Your task to perform on an android device: Search for pizza restaurants on Maps Image 0: 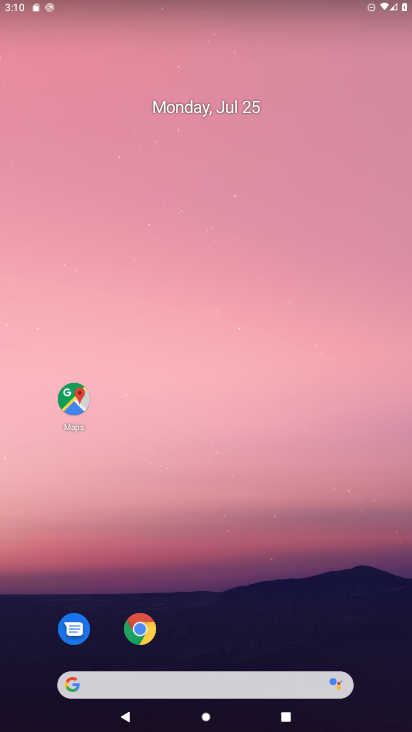
Step 0: click (82, 391)
Your task to perform on an android device: Search for pizza restaurants on Maps Image 1: 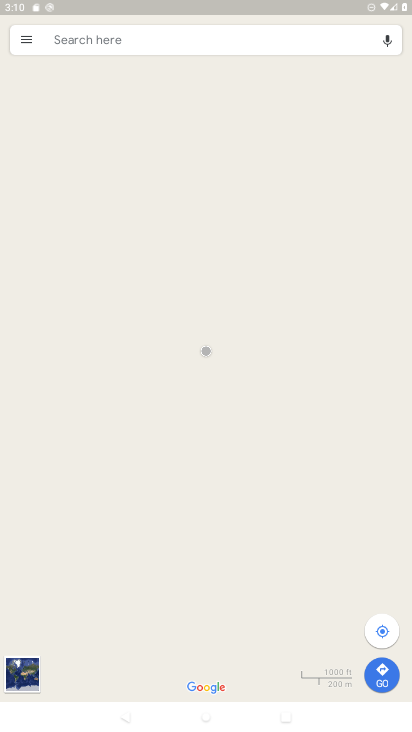
Step 1: click (73, 43)
Your task to perform on an android device: Search for pizza restaurants on Maps Image 2: 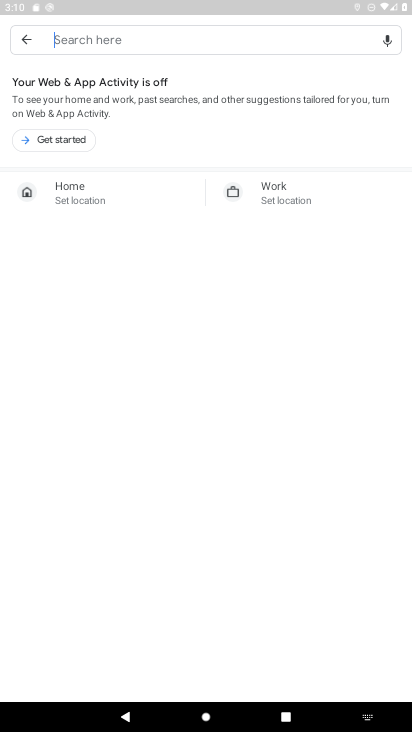
Step 2: type "pizza restaurants"
Your task to perform on an android device: Search for pizza restaurants on Maps Image 3: 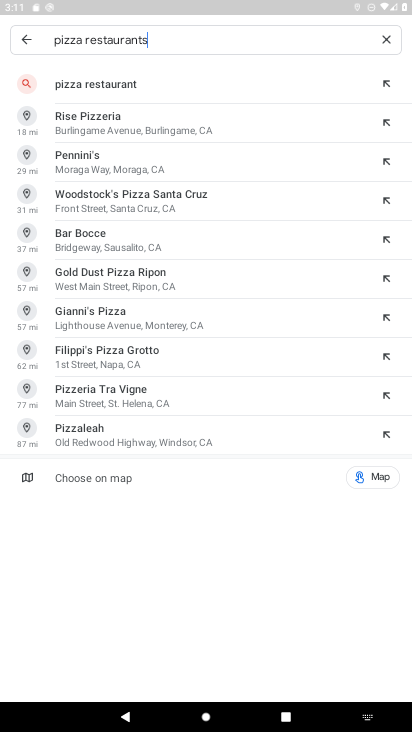
Step 3: click (42, 80)
Your task to perform on an android device: Search for pizza restaurants on Maps Image 4: 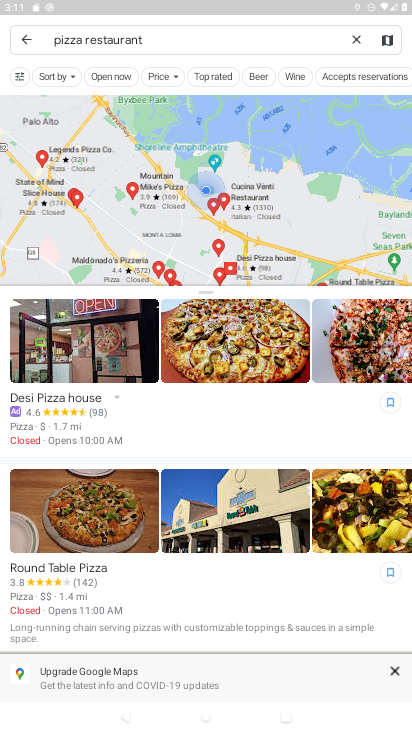
Step 4: task complete